Your task to perform on an android device: Go to Yahoo.com Image 0: 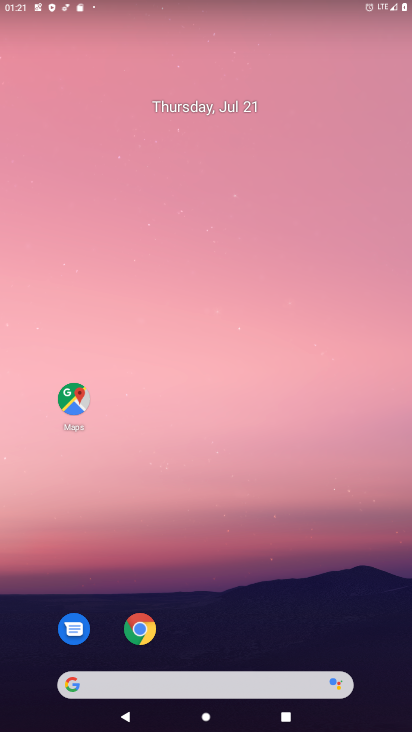
Step 0: drag from (275, 10) to (210, 25)
Your task to perform on an android device: Go to Yahoo.com Image 1: 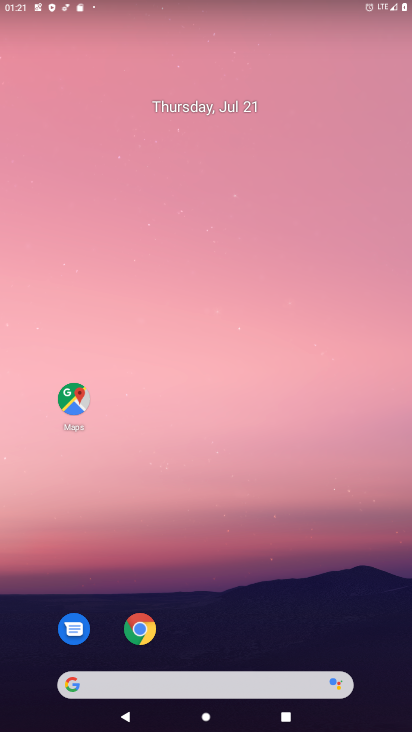
Step 1: click (349, 617)
Your task to perform on an android device: Go to Yahoo.com Image 2: 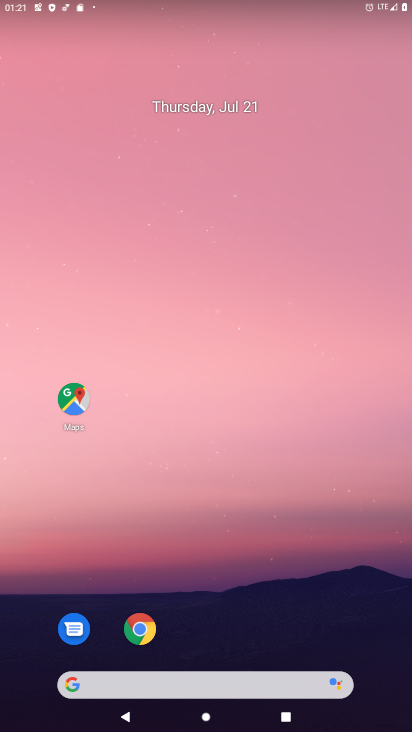
Step 2: drag from (318, 611) to (261, 22)
Your task to perform on an android device: Go to Yahoo.com Image 3: 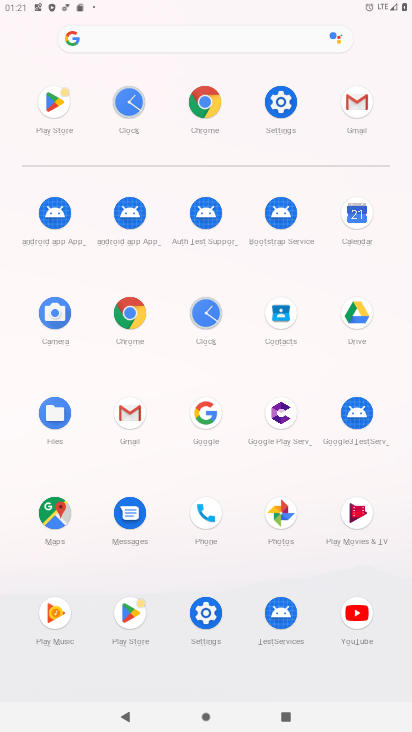
Step 3: click (130, 312)
Your task to perform on an android device: Go to Yahoo.com Image 4: 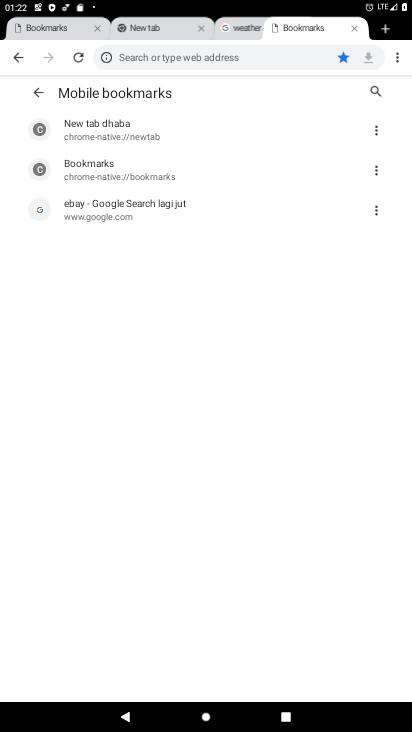
Step 4: click (281, 47)
Your task to perform on an android device: Go to Yahoo.com Image 5: 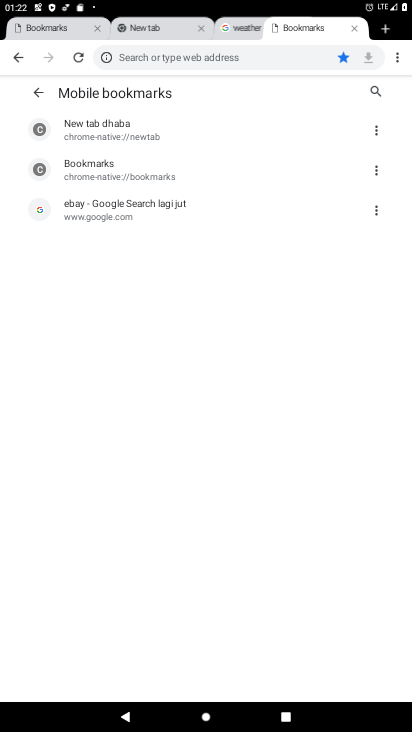
Step 5: type "yahoo.com"
Your task to perform on an android device: Go to Yahoo.com Image 6: 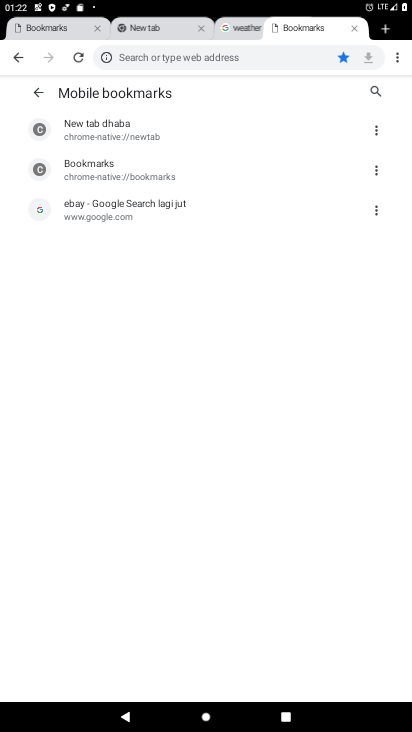
Step 6: click (258, 48)
Your task to perform on an android device: Go to Yahoo.com Image 7: 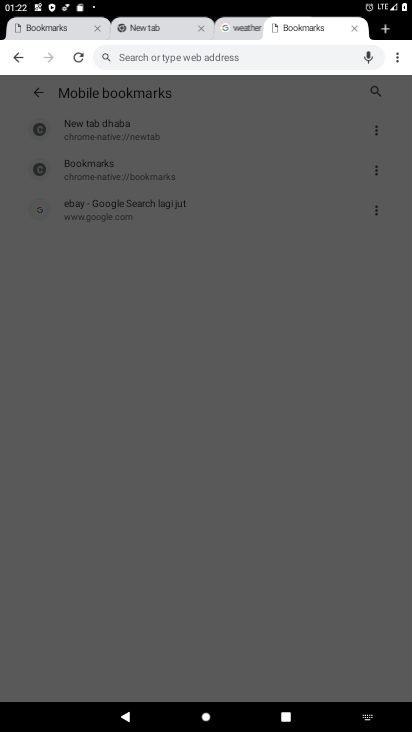
Step 7: type "yahoo.com"
Your task to perform on an android device: Go to Yahoo.com Image 8: 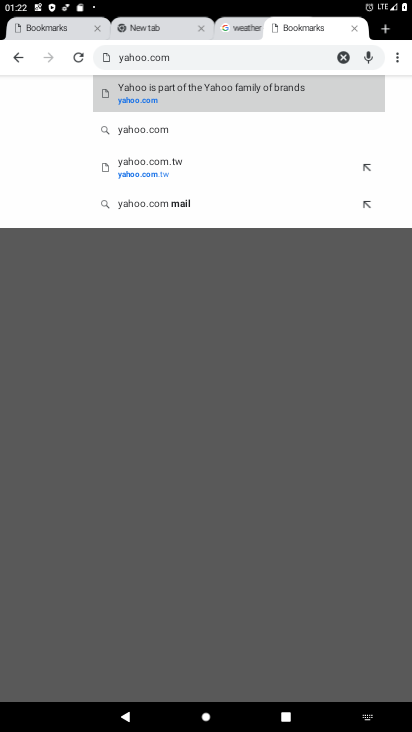
Step 8: click (161, 85)
Your task to perform on an android device: Go to Yahoo.com Image 9: 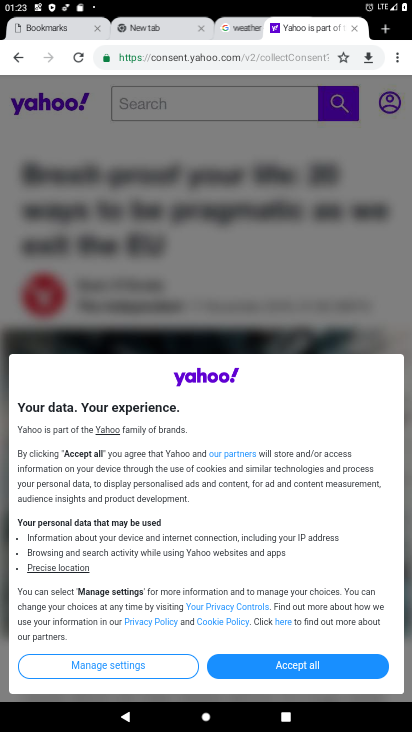
Step 9: task complete